Your task to perform on an android device: Search for Italian restaurants on Maps Image 0: 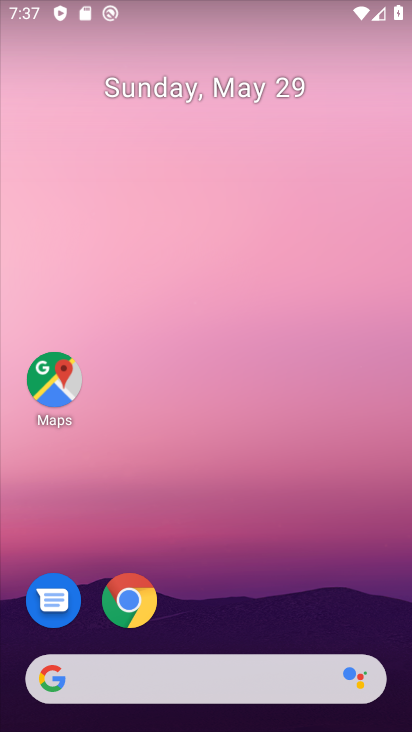
Step 0: drag from (199, 622) to (209, 3)
Your task to perform on an android device: Search for Italian restaurants on Maps Image 1: 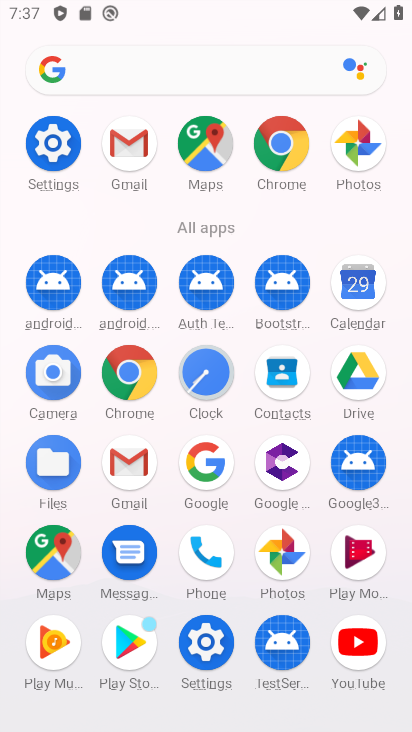
Step 1: click (64, 551)
Your task to perform on an android device: Search for Italian restaurants on Maps Image 2: 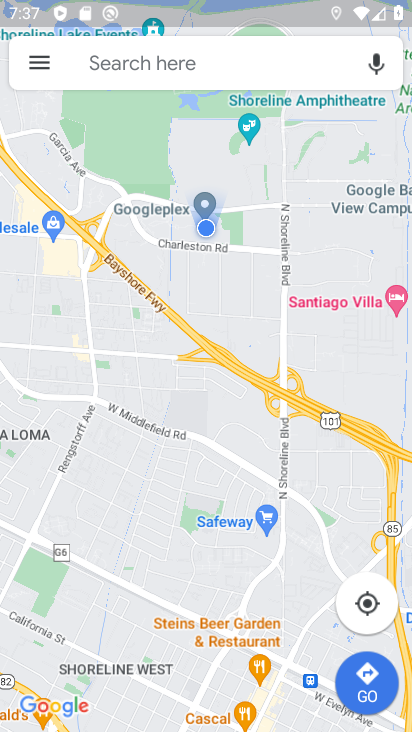
Step 2: click (170, 75)
Your task to perform on an android device: Search for Italian restaurants on Maps Image 3: 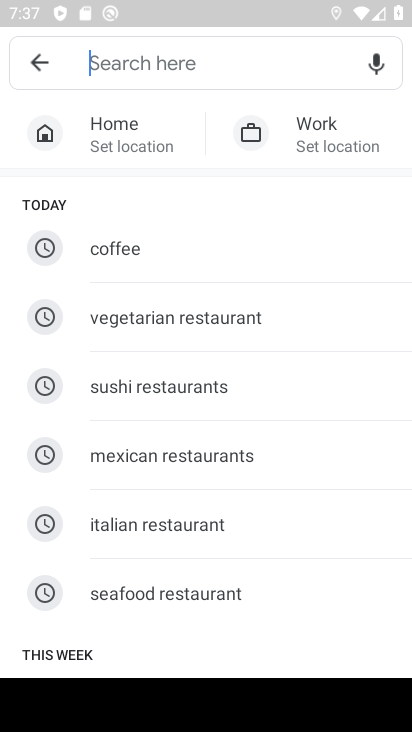
Step 3: type "italiian restaurants"
Your task to perform on an android device: Search for Italian restaurants on Maps Image 4: 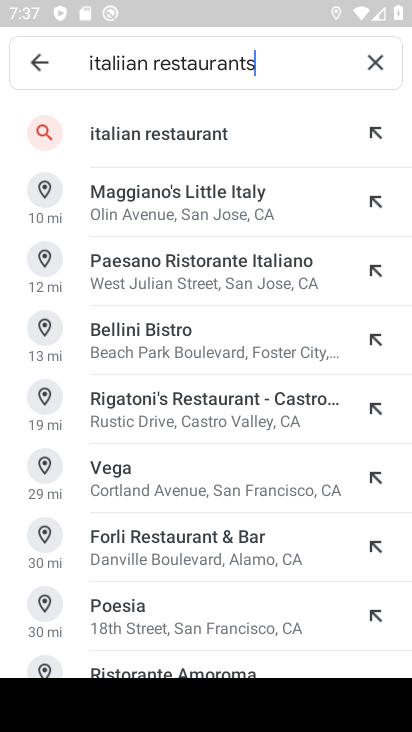
Step 4: click (192, 140)
Your task to perform on an android device: Search for Italian restaurants on Maps Image 5: 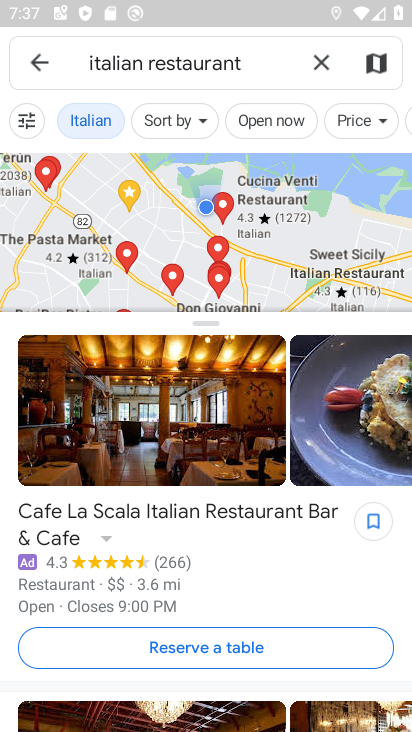
Step 5: task complete